Your task to perform on an android device: turn off picture-in-picture Image 0: 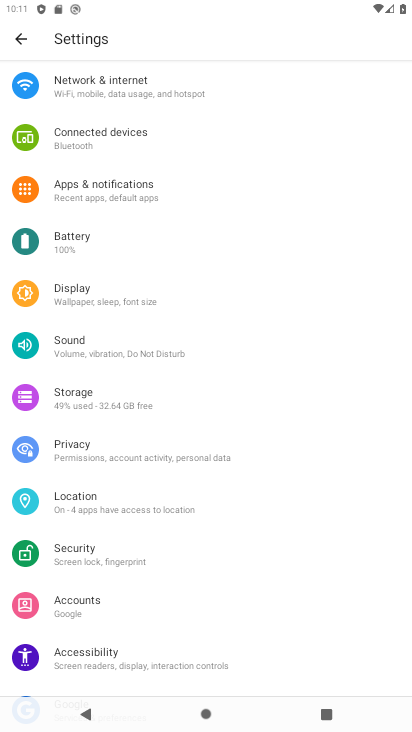
Step 0: click (102, 200)
Your task to perform on an android device: turn off picture-in-picture Image 1: 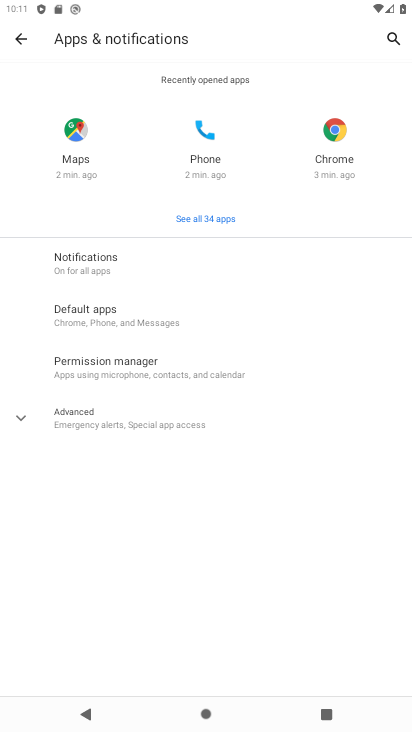
Step 1: click (80, 417)
Your task to perform on an android device: turn off picture-in-picture Image 2: 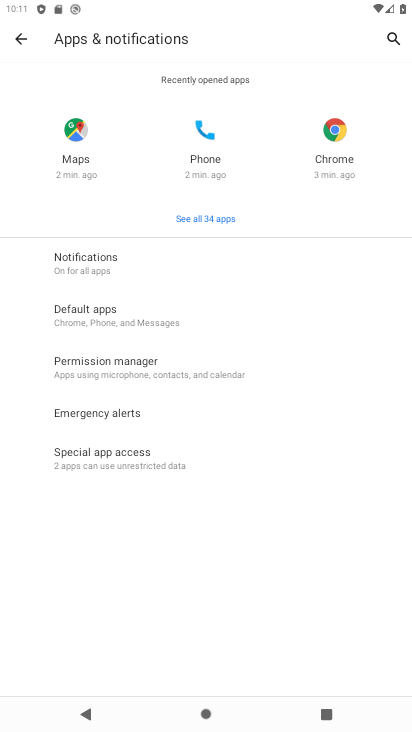
Step 2: click (100, 265)
Your task to perform on an android device: turn off picture-in-picture Image 3: 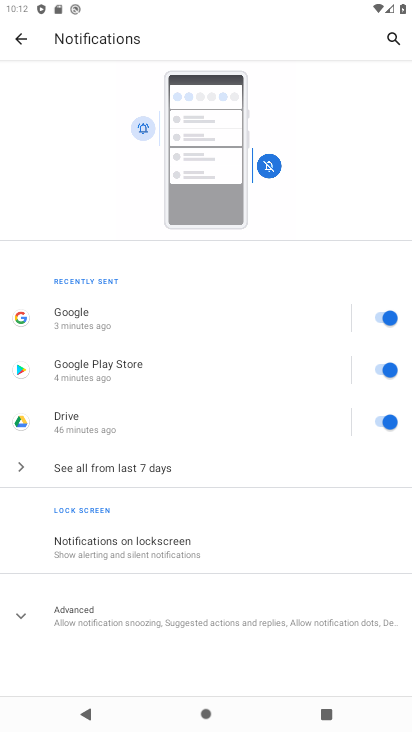
Step 3: click (103, 615)
Your task to perform on an android device: turn off picture-in-picture Image 4: 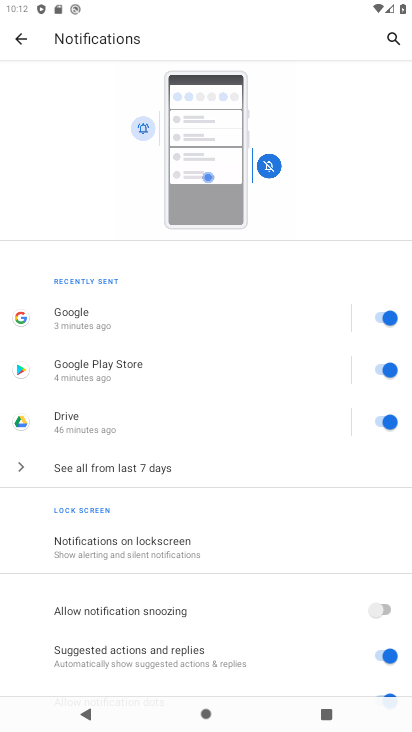
Step 4: task complete